Your task to perform on an android device: set the timer Image 0: 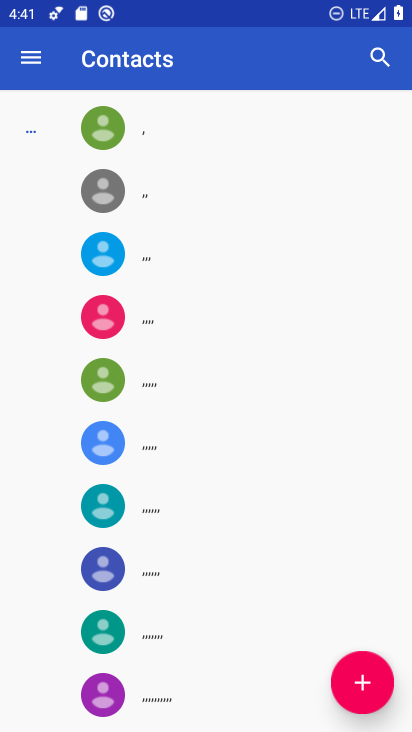
Step 0: press home button
Your task to perform on an android device: set the timer Image 1: 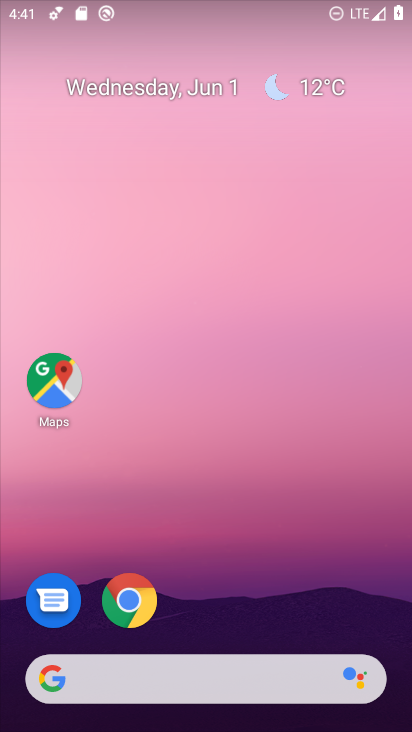
Step 1: drag from (381, 620) to (287, 118)
Your task to perform on an android device: set the timer Image 2: 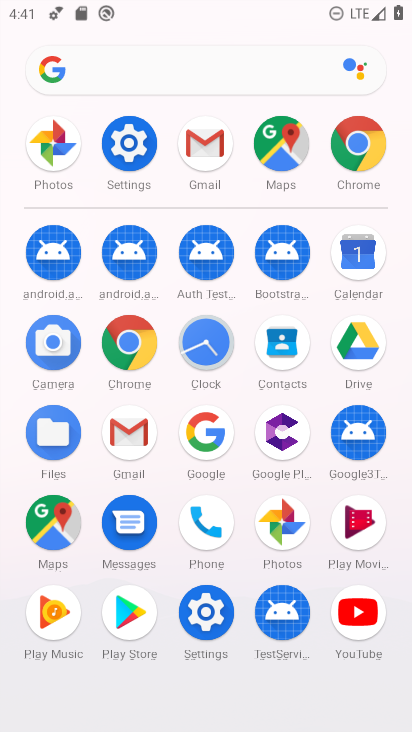
Step 2: click (205, 341)
Your task to perform on an android device: set the timer Image 3: 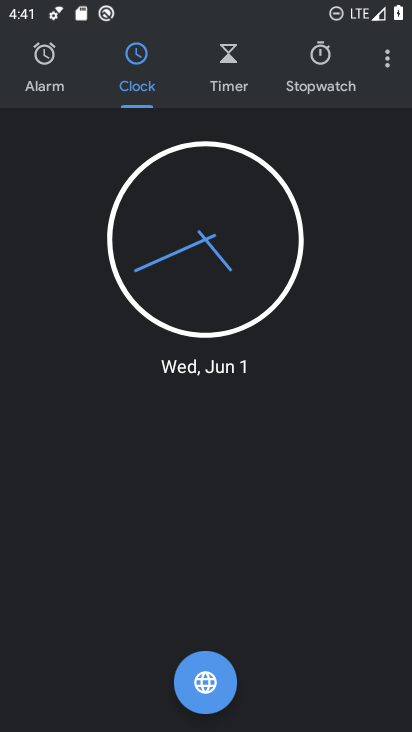
Step 3: click (230, 65)
Your task to perform on an android device: set the timer Image 4: 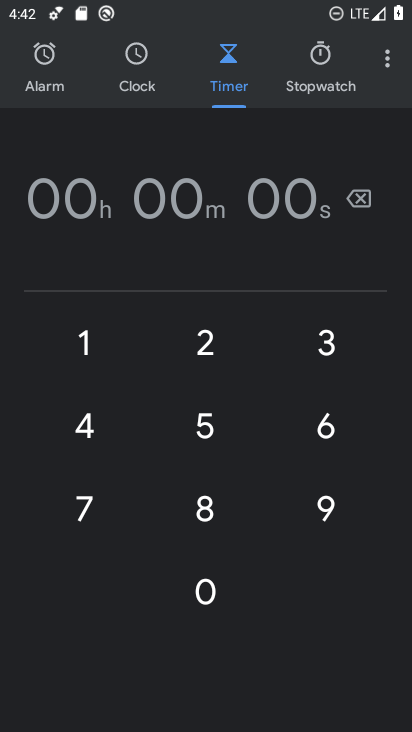
Step 4: click (93, 346)
Your task to perform on an android device: set the timer Image 5: 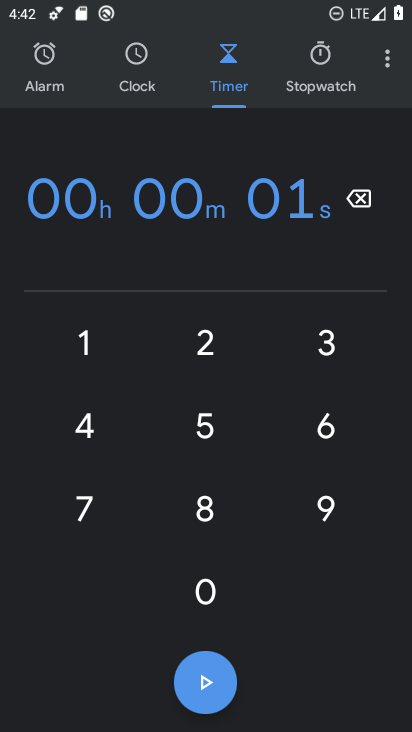
Step 5: click (332, 338)
Your task to perform on an android device: set the timer Image 6: 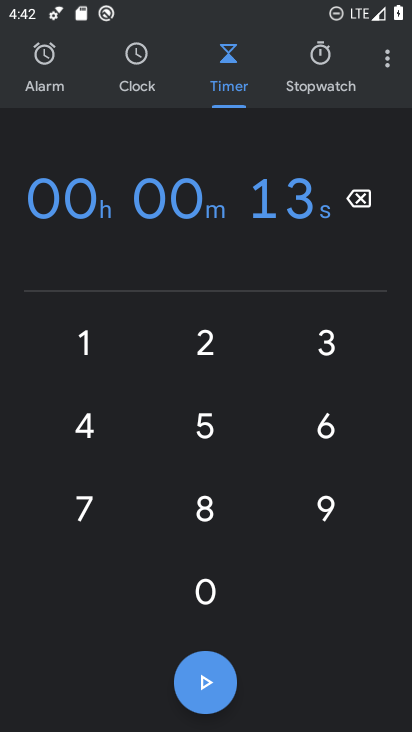
Step 6: click (207, 603)
Your task to perform on an android device: set the timer Image 7: 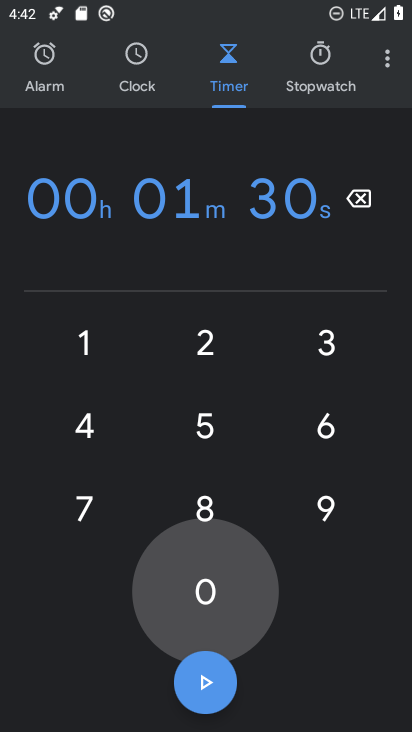
Step 7: click (207, 603)
Your task to perform on an android device: set the timer Image 8: 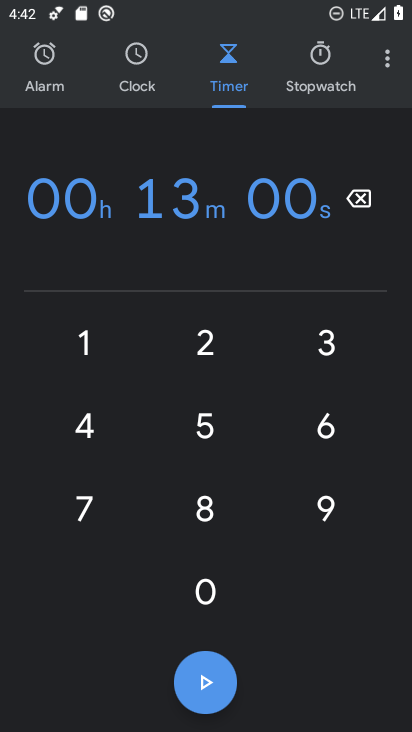
Step 8: click (207, 603)
Your task to perform on an android device: set the timer Image 9: 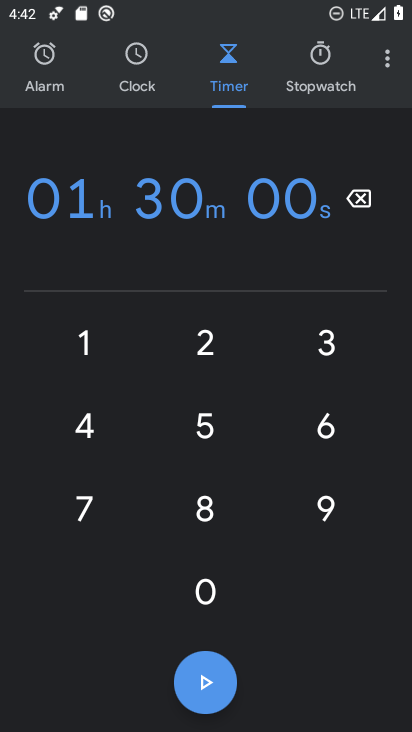
Step 9: task complete